Your task to perform on an android device: Turn on the flashlight Image 0: 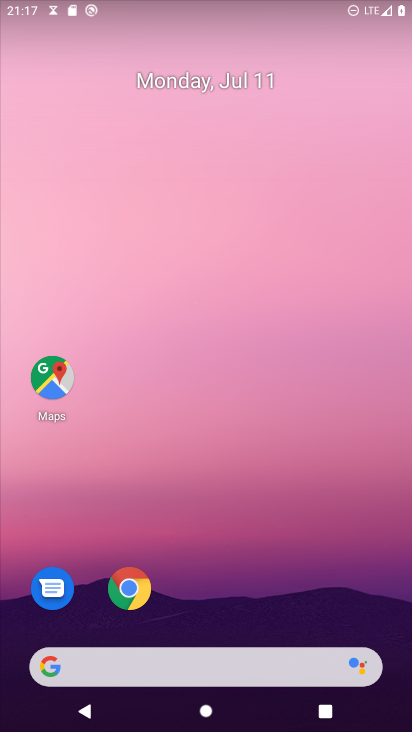
Step 0: press home button
Your task to perform on an android device: Turn on the flashlight Image 1: 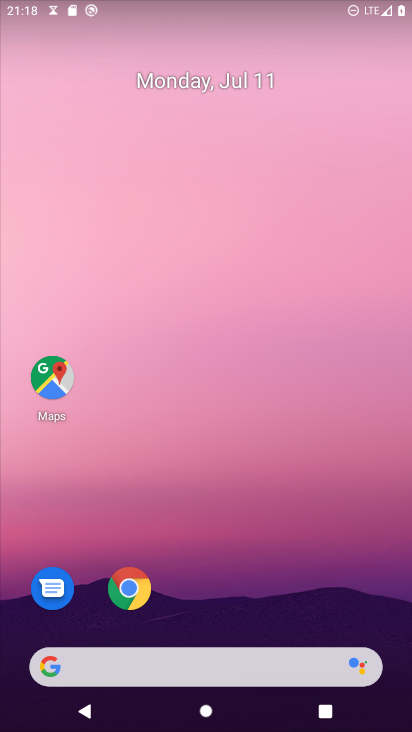
Step 1: task complete